Your task to perform on an android device: Go to Google maps Image 0: 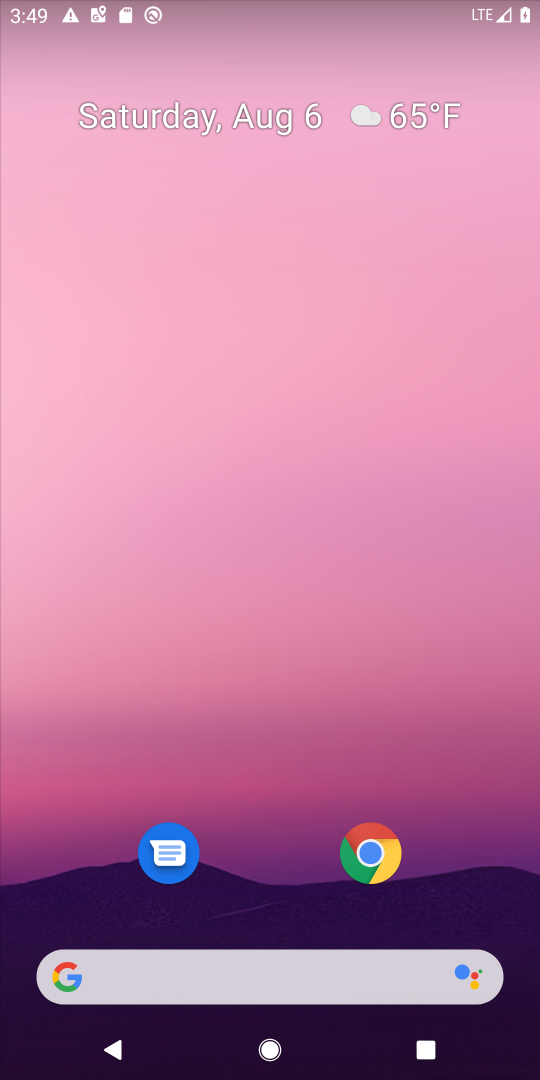
Step 0: drag from (222, 775) to (216, 84)
Your task to perform on an android device: Go to Google maps Image 1: 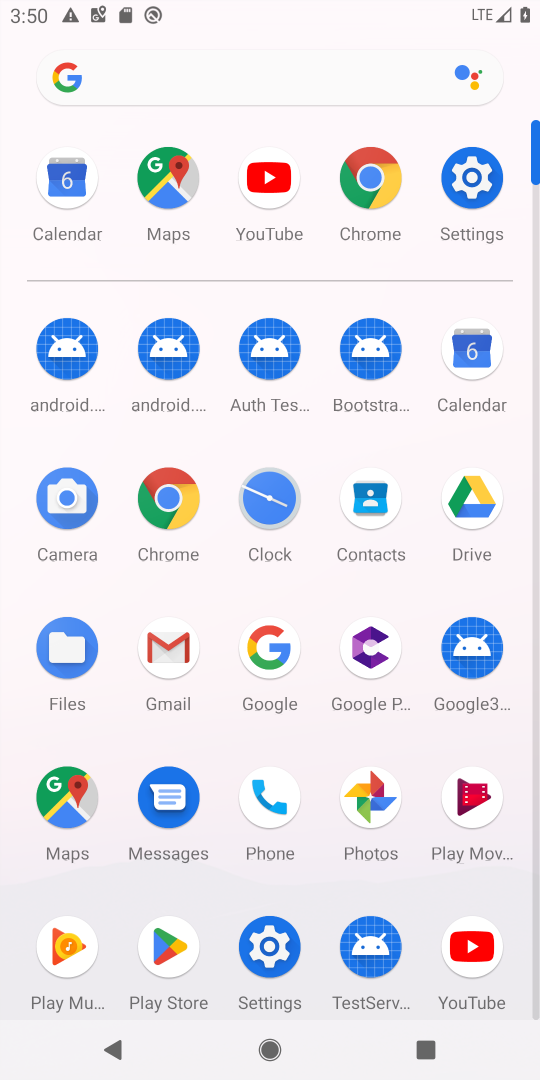
Step 1: click (158, 170)
Your task to perform on an android device: Go to Google maps Image 2: 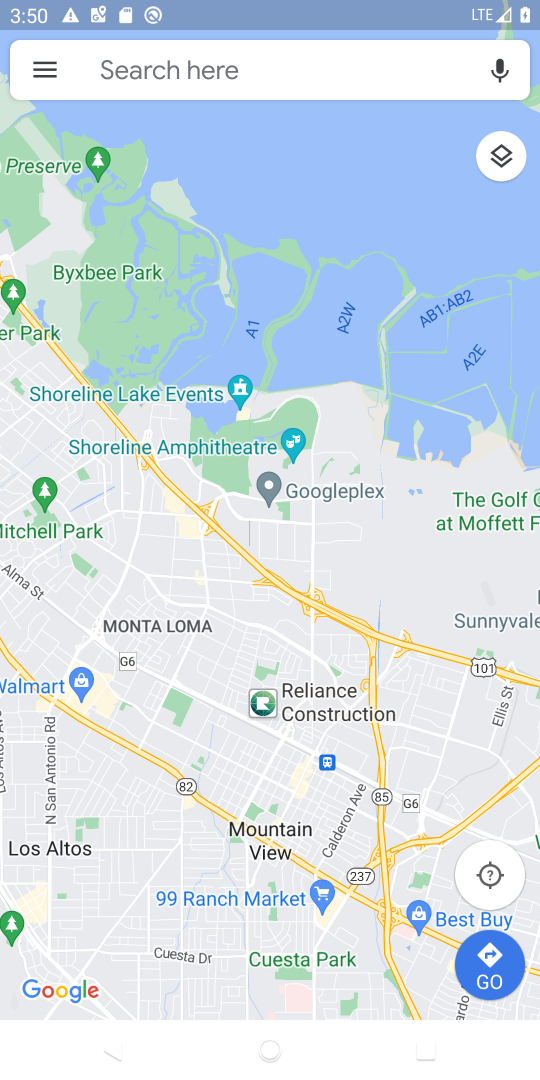
Step 2: task complete